Your task to perform on an android device: turn on showing notifications on the lock screen Image 0: 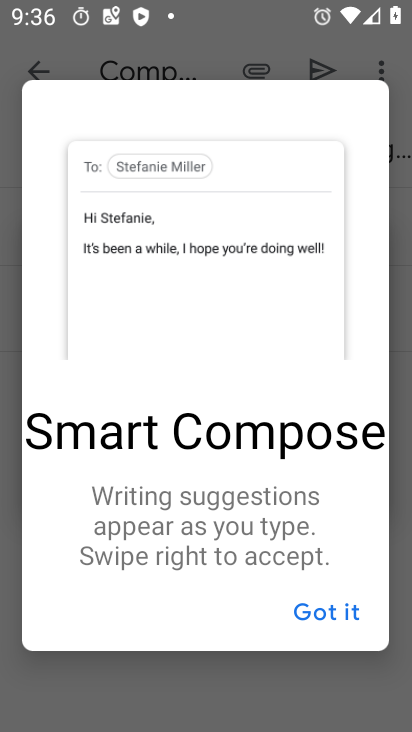
Step 0: click (340, 612)
Your task to perform on an android device: turn on showing notifications on the lock screen Image 1: 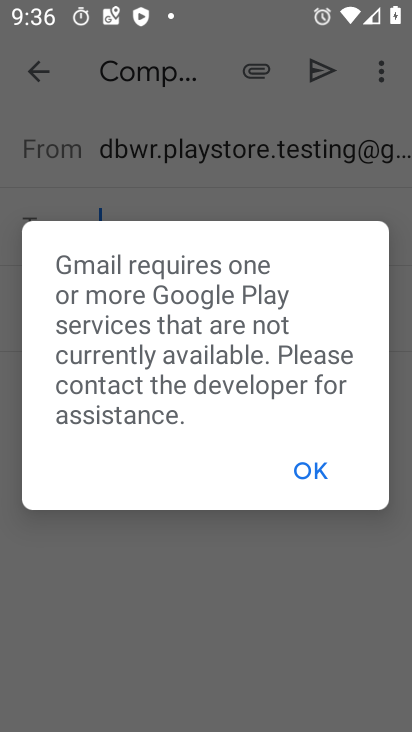
Step 1: click (305, 470)
Your task to perform on an android device: turn on showing notifications on the lock screen Image 2: 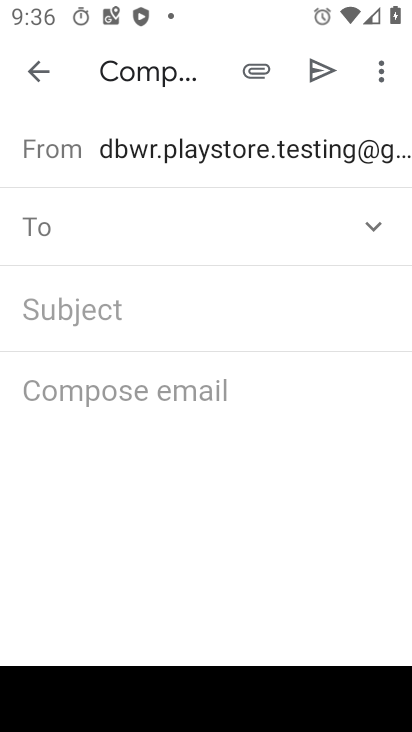
Step 2: click (32, 81)
Your task to perform on an android device: turn on showing notifications on the lock screen Image 3: 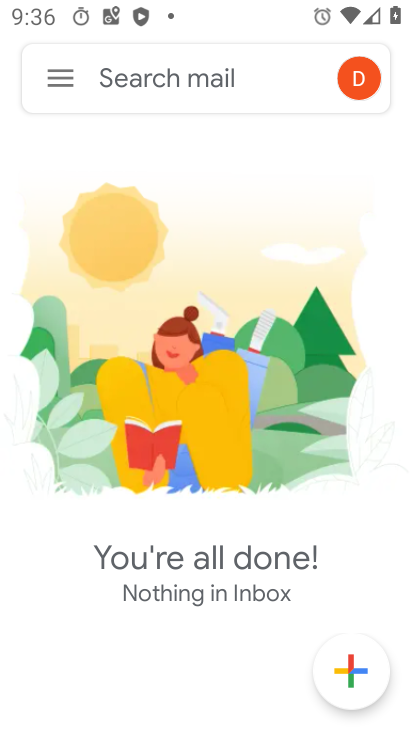
Step 3: click (60, 88)
Your task to perform on an android device: turn on showing notifications on the lock screen Image 4: 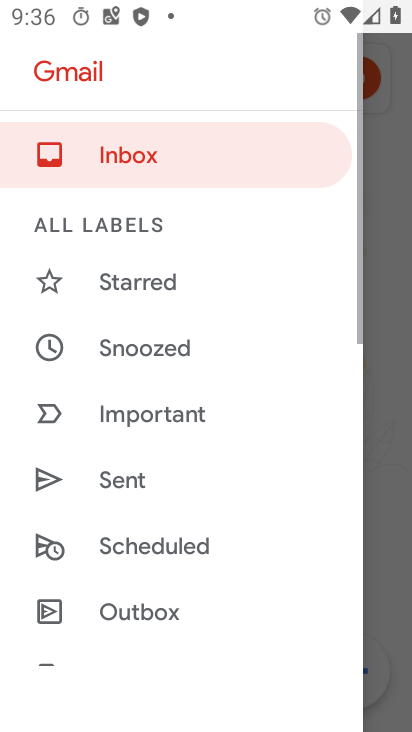
Step 4: press home button
Your task to perform on an android device: turn on showing notifications on the lock screen Image 5: 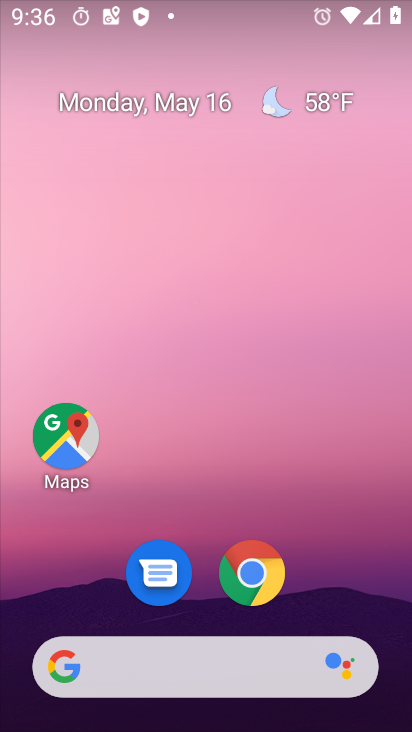
Step 5: drag from (387, 622) to (120, 159)
Your task to perform on an android device: turn on showing notifications on the lock screen Image 6: 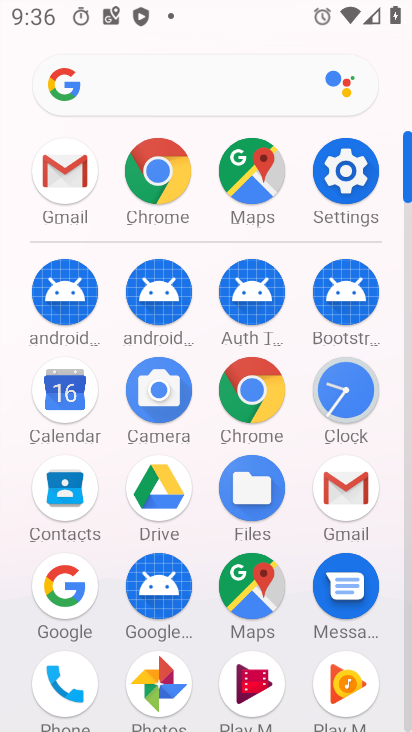
Step 6: click (347, 182)
Your task to perform on an android device: turn on showing notifications on the lock screen Image 7: 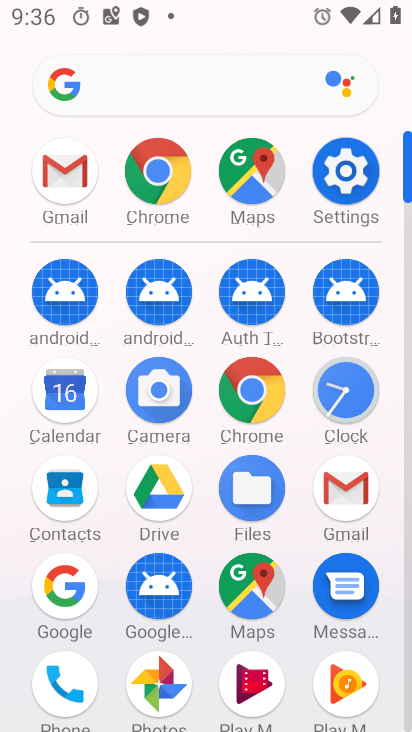
Step 7: click (347, 182)
Your task to perform on an android device: turn on showing notifications on the lock screen Image 8: 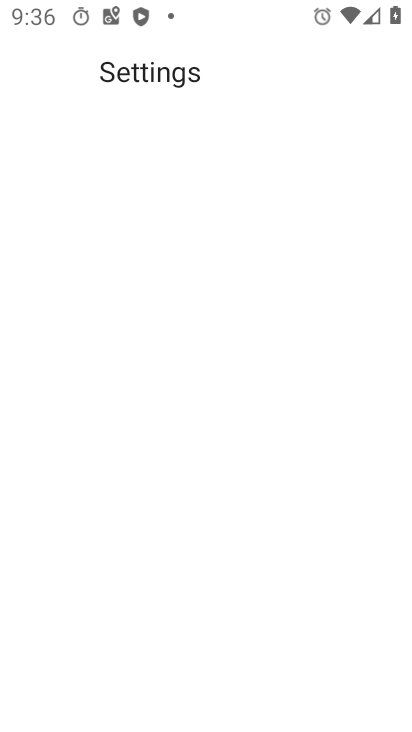
Step 8: click (347, 182)
Your task to perform on an android device: turn on showing notifications on the lock screen Image 9: 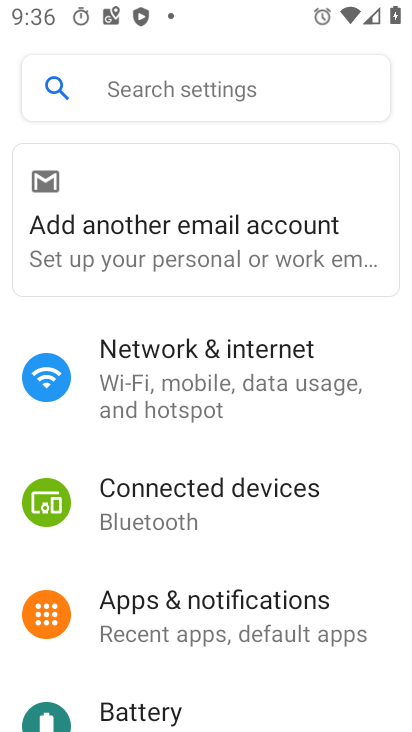
Step 9: click (182, 619)
Your task to perform on an android device: turn on showing notifications on the lock screen Image 10: 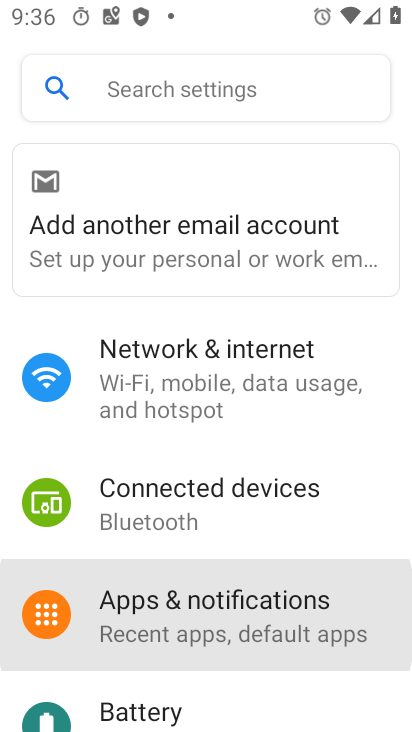
Step 10: click (182, 619)
Your task to perform on an android device: turn on showing notifications on the lock screen Image 11: 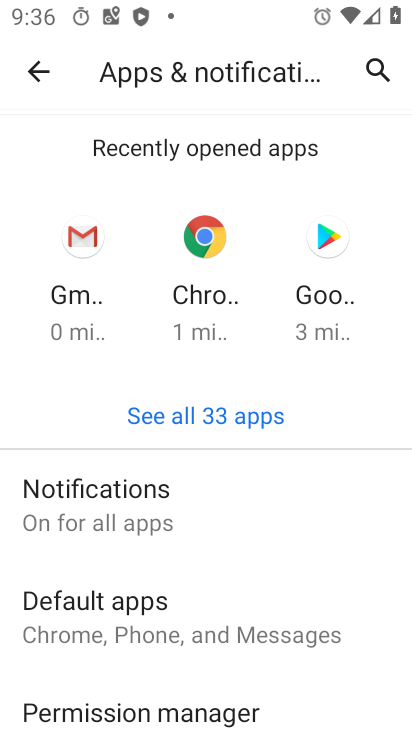
Step 11: click (77, 522)
Your task to perform on an android device: turn on showing notifications on the lock screen Image 12: 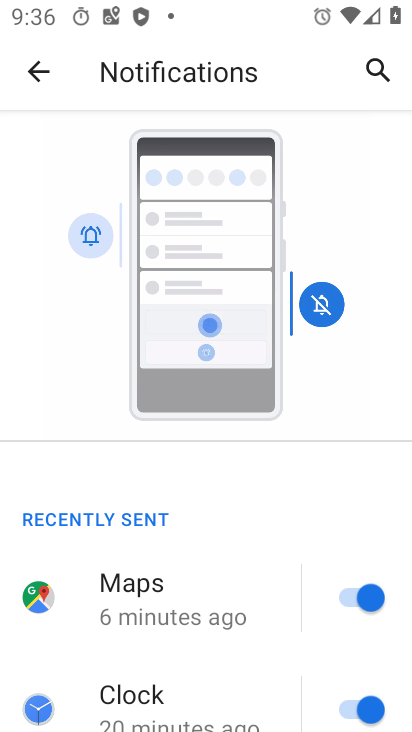
Step 12: drag from (211, 634) to (170, 258)
Your task to perform on an android device: turn on showing notifications on the lock screen Image 13: 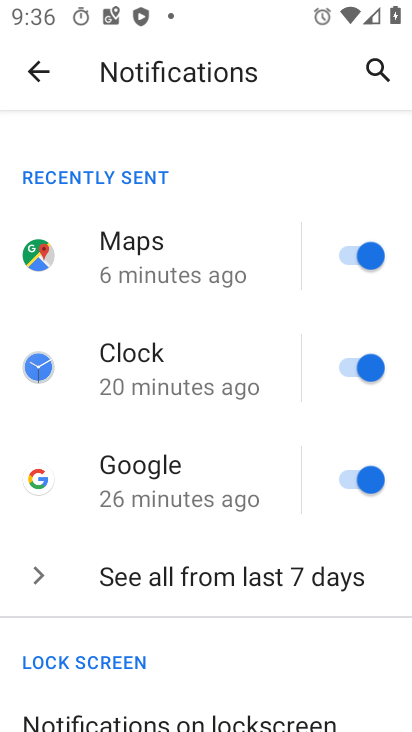
Step 13: drag from (264, 652) to (230, 229)
Your task to perform on an android device: turn on showing notifications on the lock screen Image 14: 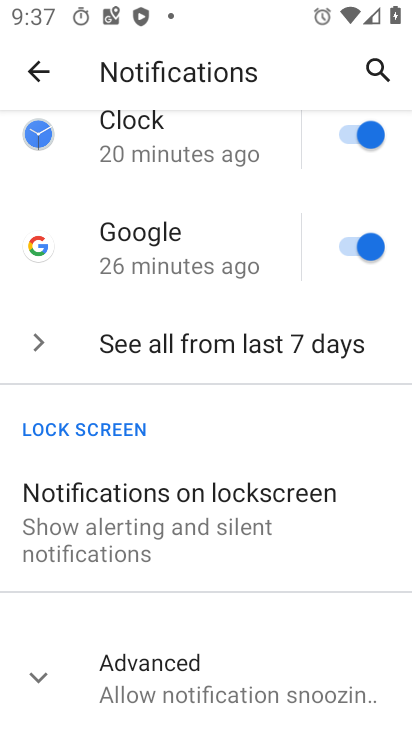
Step 14: click (129, 495)
Your task to perform on an android device: turn on showing notifications on the lock screen Image 15: 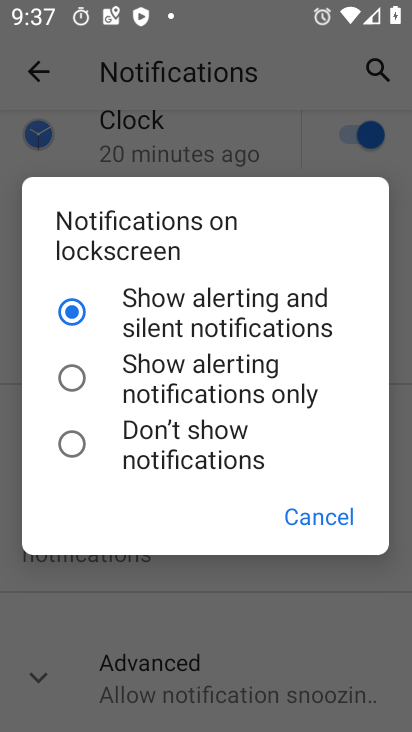
Step 15: click (317, 511)
Your task to perform on an android device: turn on showing notifications on the lock screen Image 16: 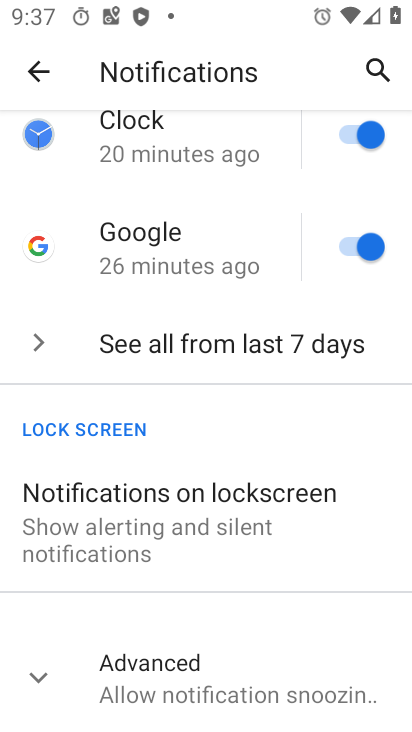
Step 16: task complete